Your task to perform on an android device: turn off improve location accuracy Image 0: 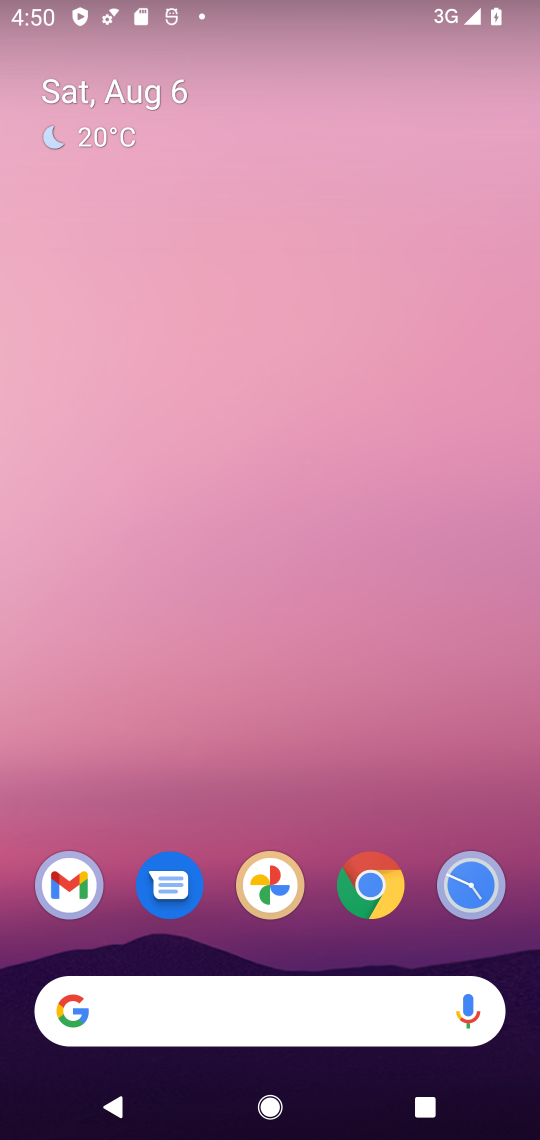
Step 0: drag from (421, 842) to (240, 178)
Your task to perform on an android device: turn off improve location accuracy Image 1: 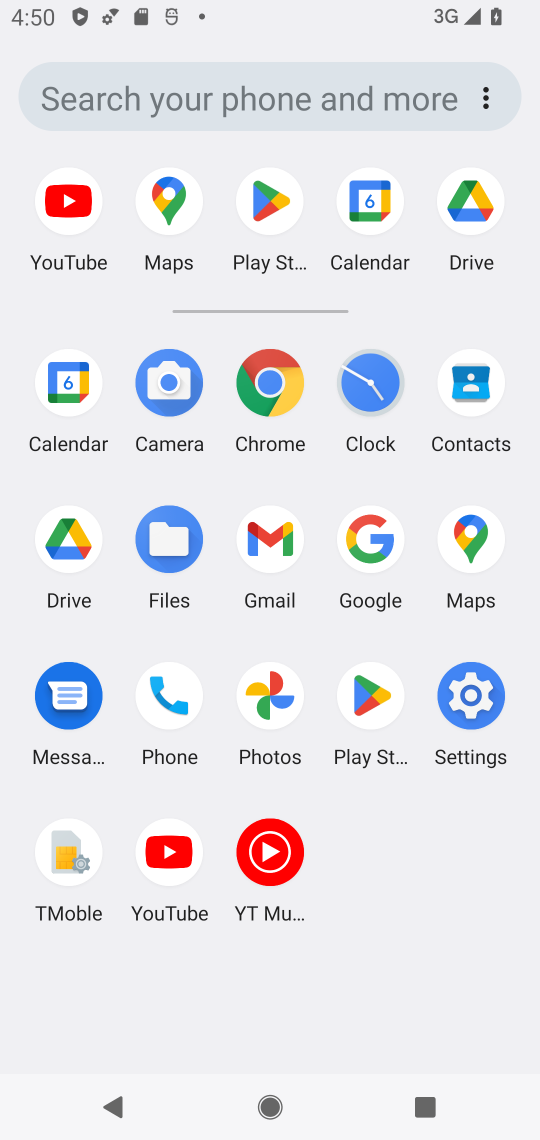
Step 1: click (459, 698)
Your task to perform on an android device: turn off improve location accuracy Image 2: 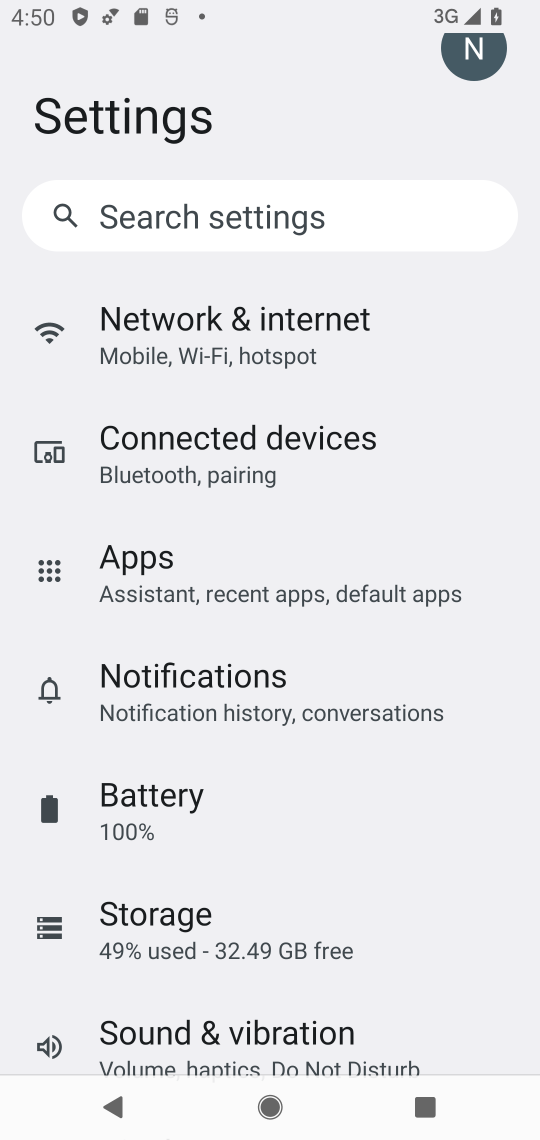
Step 2: drag from (185, 1008) to (246, 247)
Your task to perform on an android device: turn off improve location accuracy Image 3: 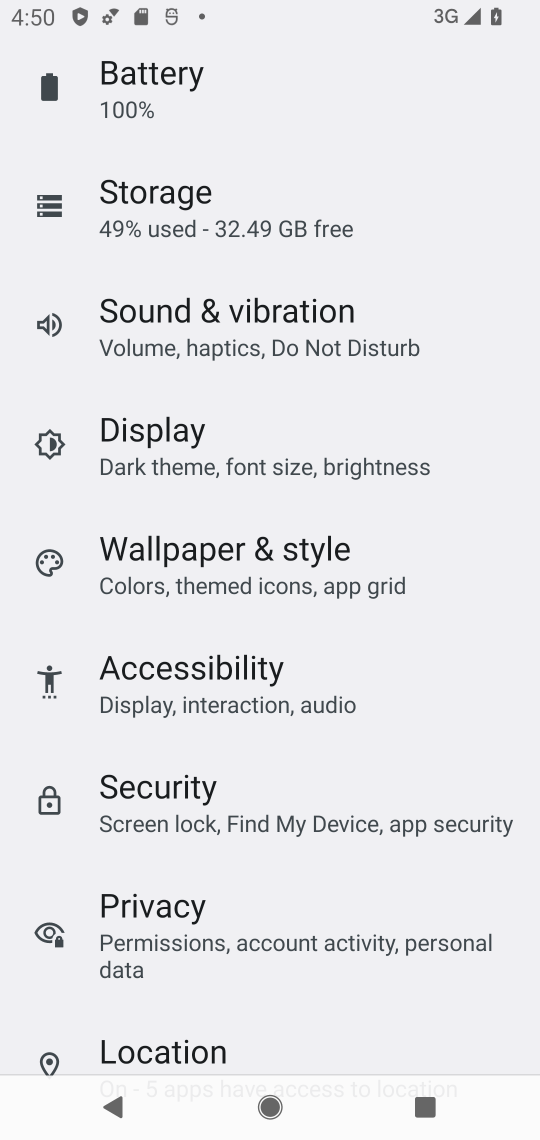
Step 3: click (176, 1061)
Your task to perform on an android device: turn off improve location accuracy Image 4: 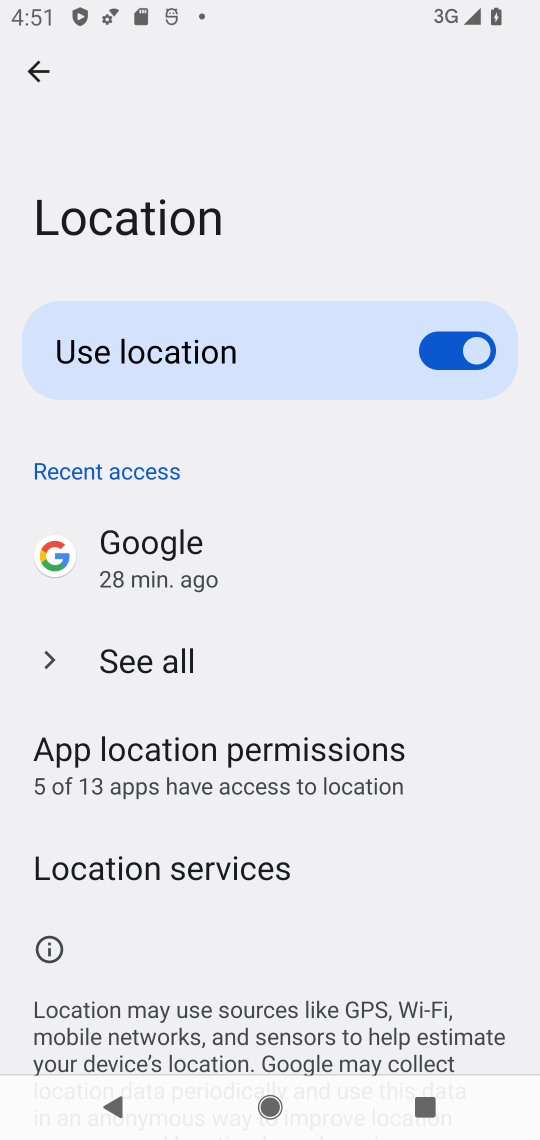
Step 4: click (217, 888)
Your task to perform on an android device: turn off improve location accuracy Image 5: 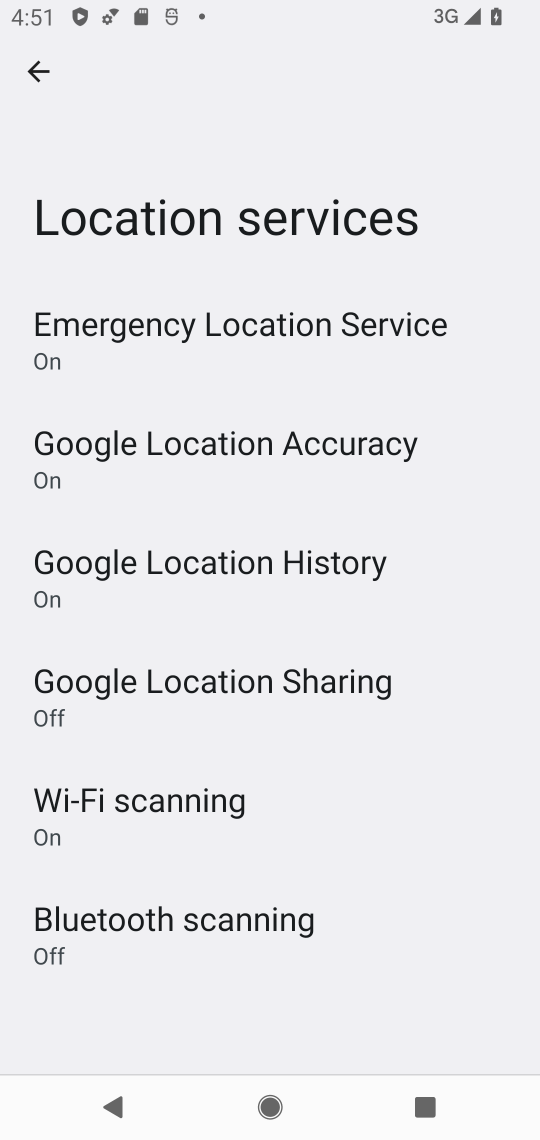
Step 5: click (276, 471)
Your task to perform on an android device: turn off improve location accuracy Image 6: 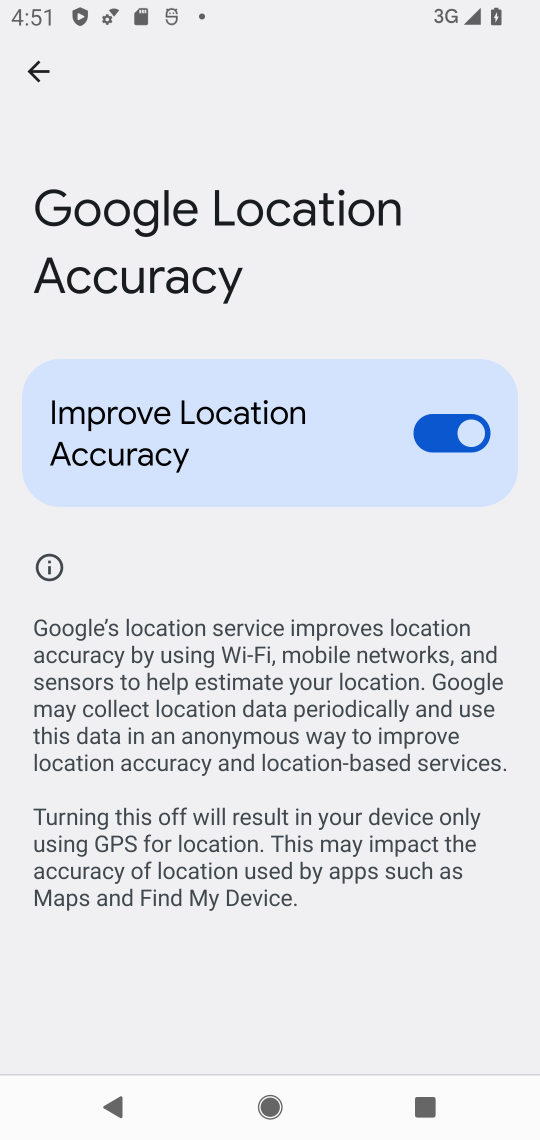
Step 6: click (478, 454)
Your task to perform on an android device: turn off improve location accuracy Image 7: 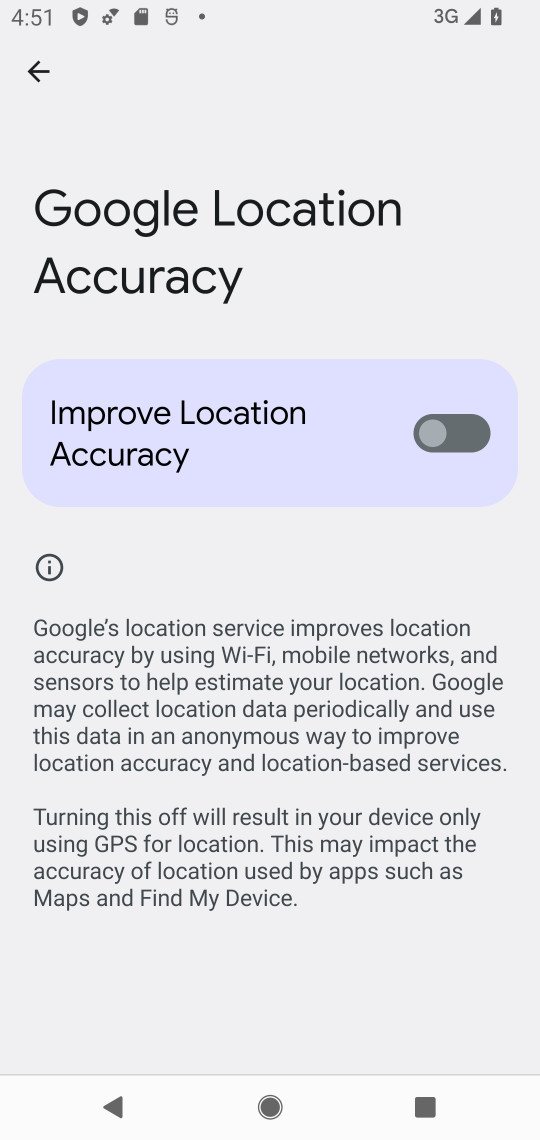
Step 7: task complete